Your task to perform on an android device: Open Google Chrome and click the shortcut for Amazon.com Image 0: 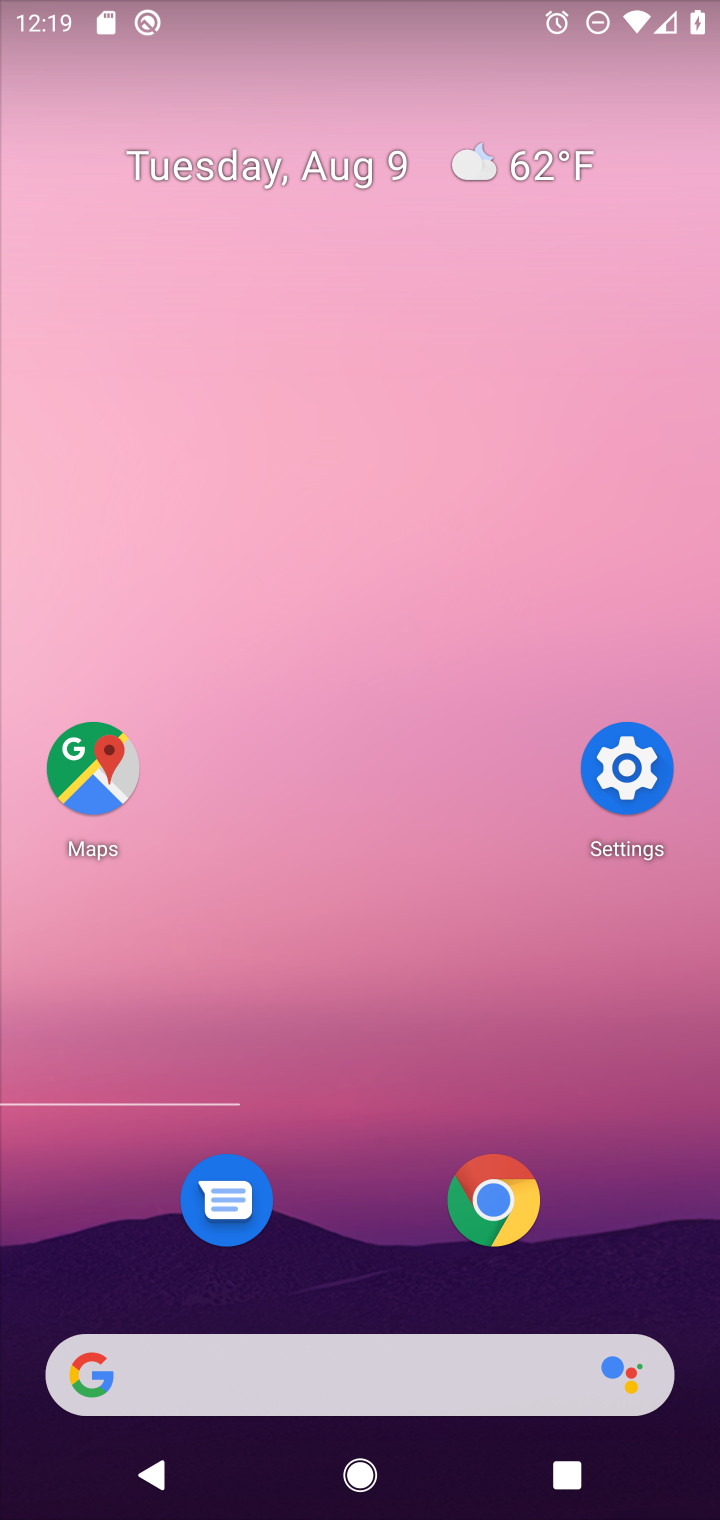
Step 0: press home button
Your task to perform on an android device: Open Google Chrome and click the shortcut for Amazon.com Image 1: 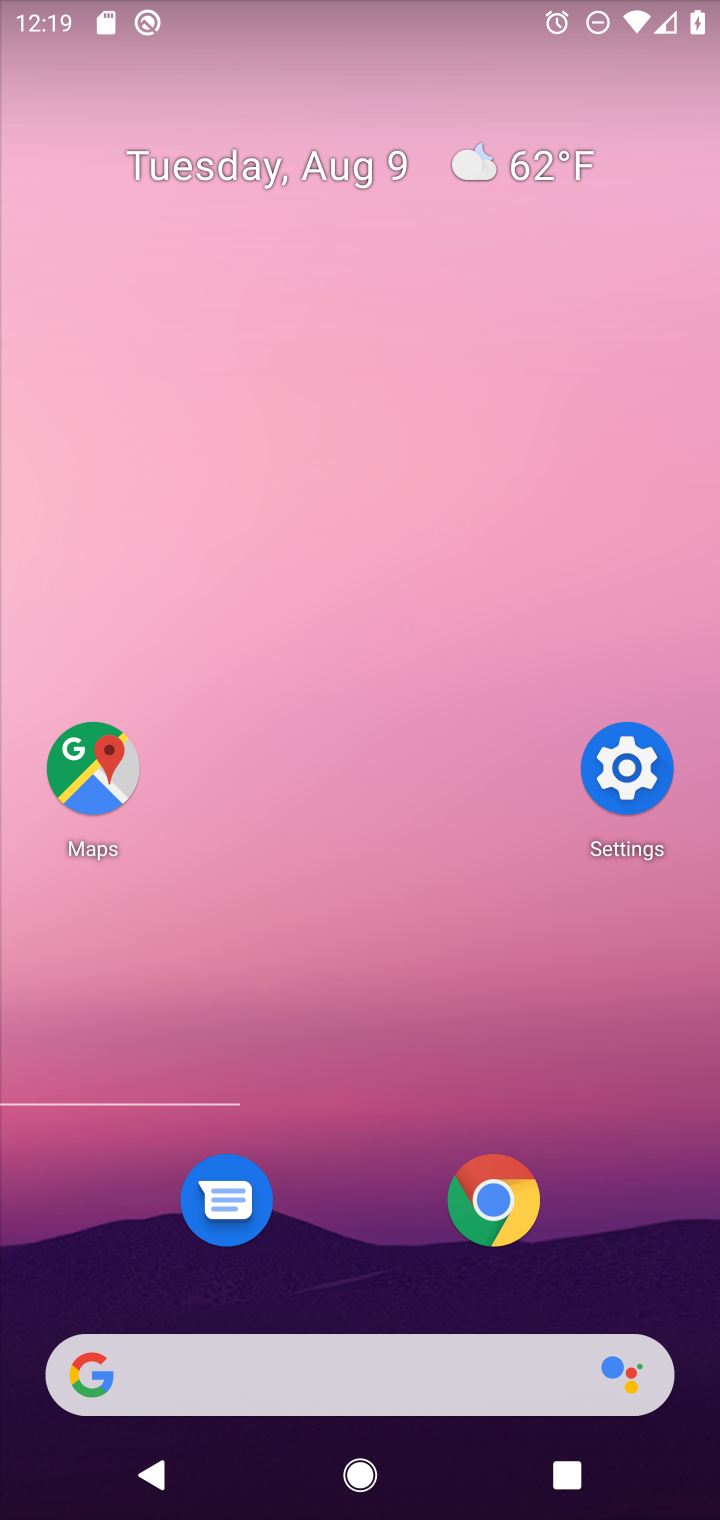
Step 1: click (493, 1197)
Your task to perform on an android device: Open Google Chrome and click the shortcut for Amazon.com Image 2: 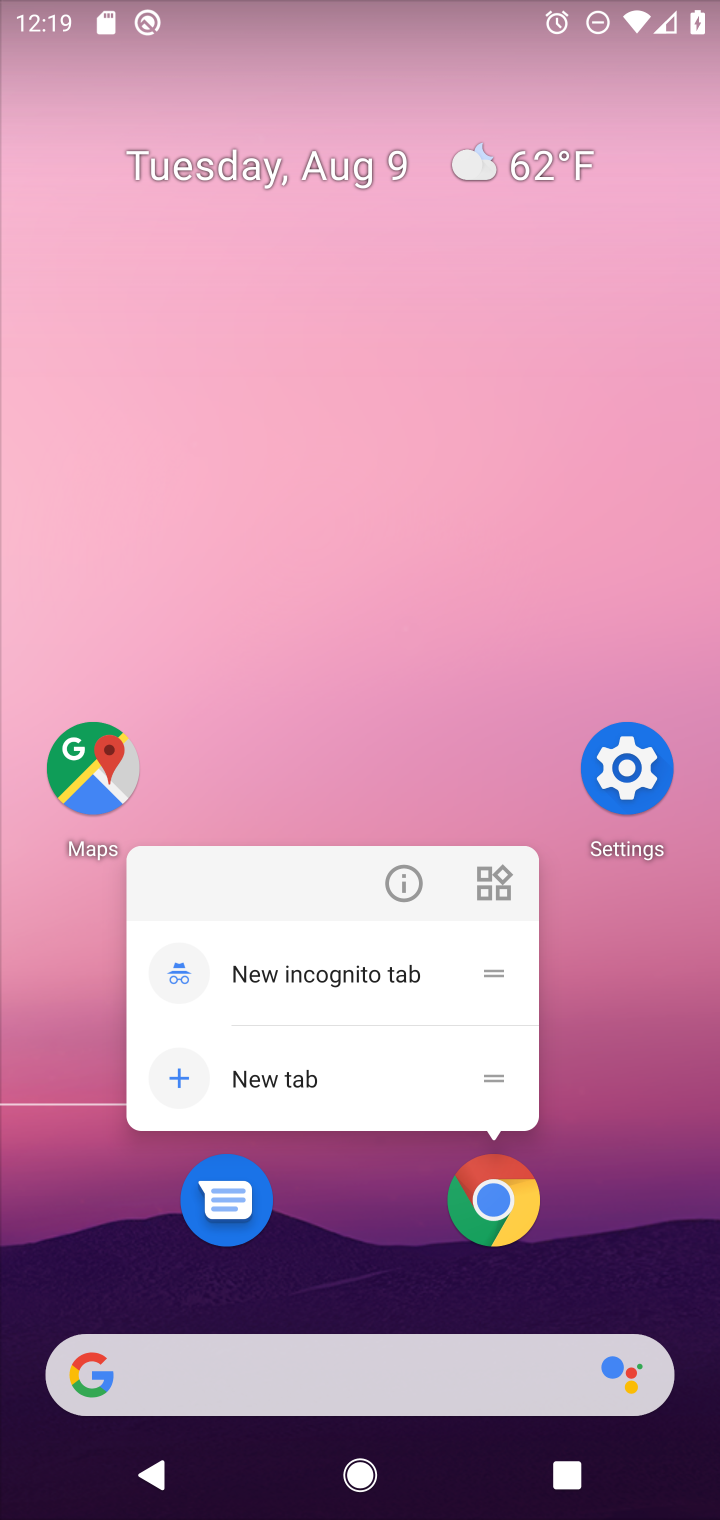
Step 2: click (493, 1198)
Your task to perform on an android device: Open Google Chrome and click the shortcut for Amazon.com Image 3: 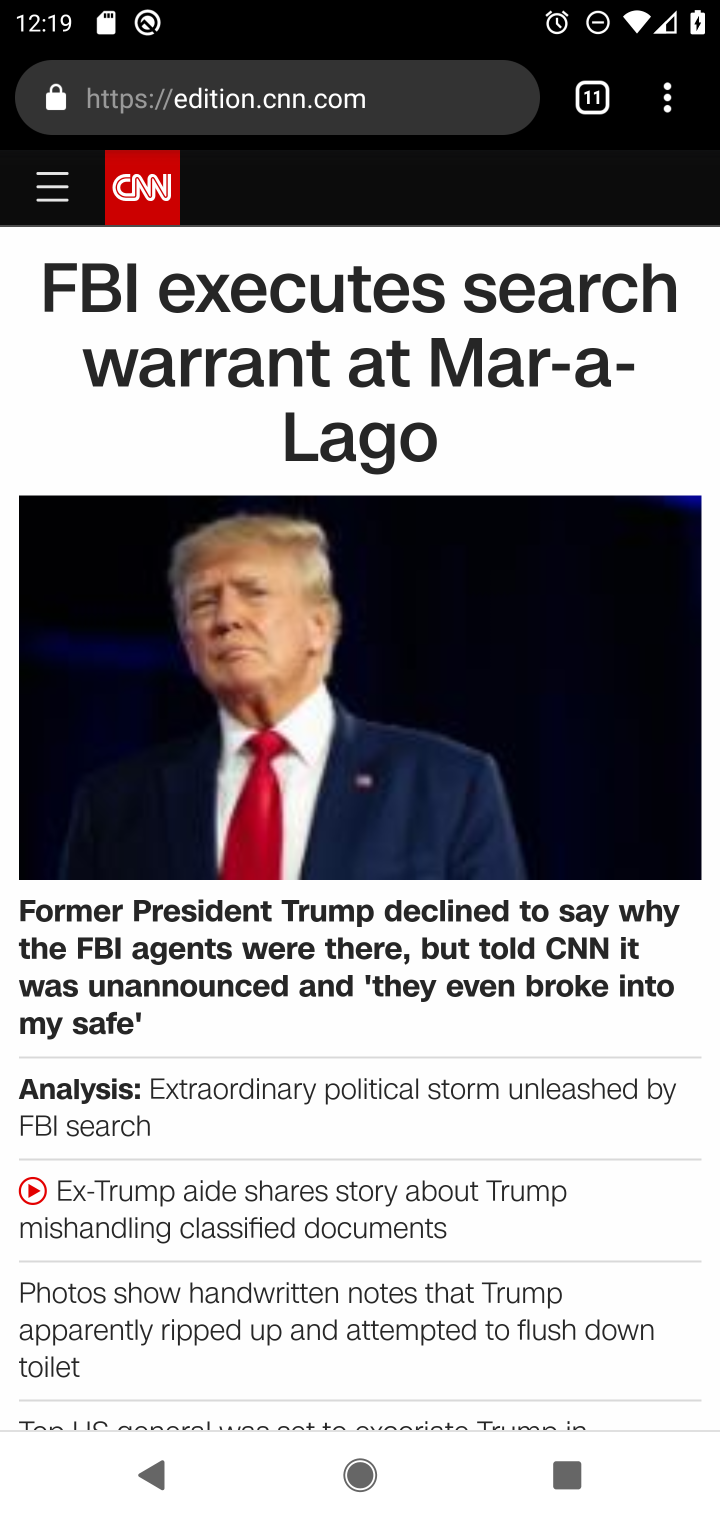
Step 3: drag from (677, 96) to (467, 317)
Your task to perform on an android device: Open Google Chrome and click the shortcut for Amazon.com Image 4: 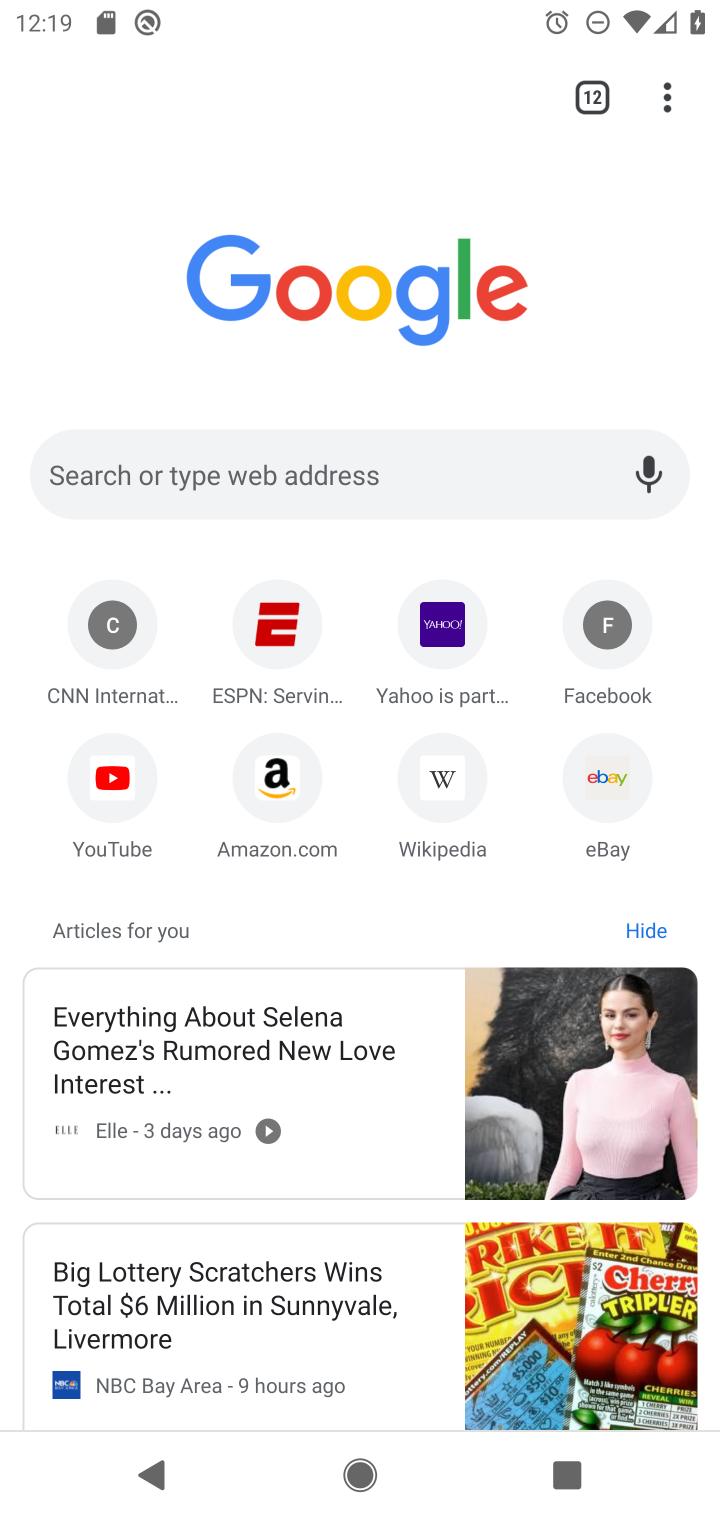
Step 4: click (266, 777)
Your task to perform on an android device: Open Google Chrome and click the shortcut for Amazon.com Image 5: 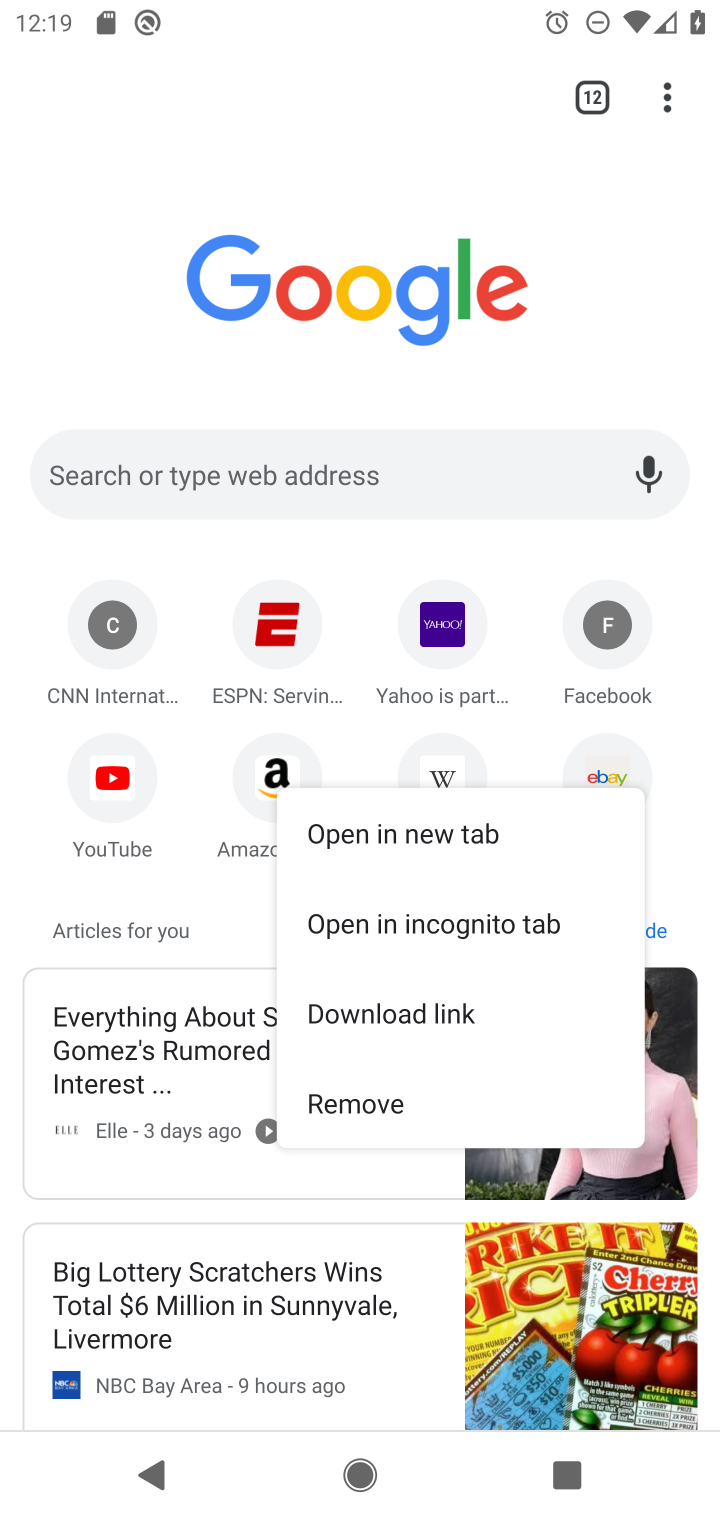
Step 5: click (266, 777)
Your task to perform on an android device: Open Google Chrome and click the shortcut for Amazon.com Image 6: 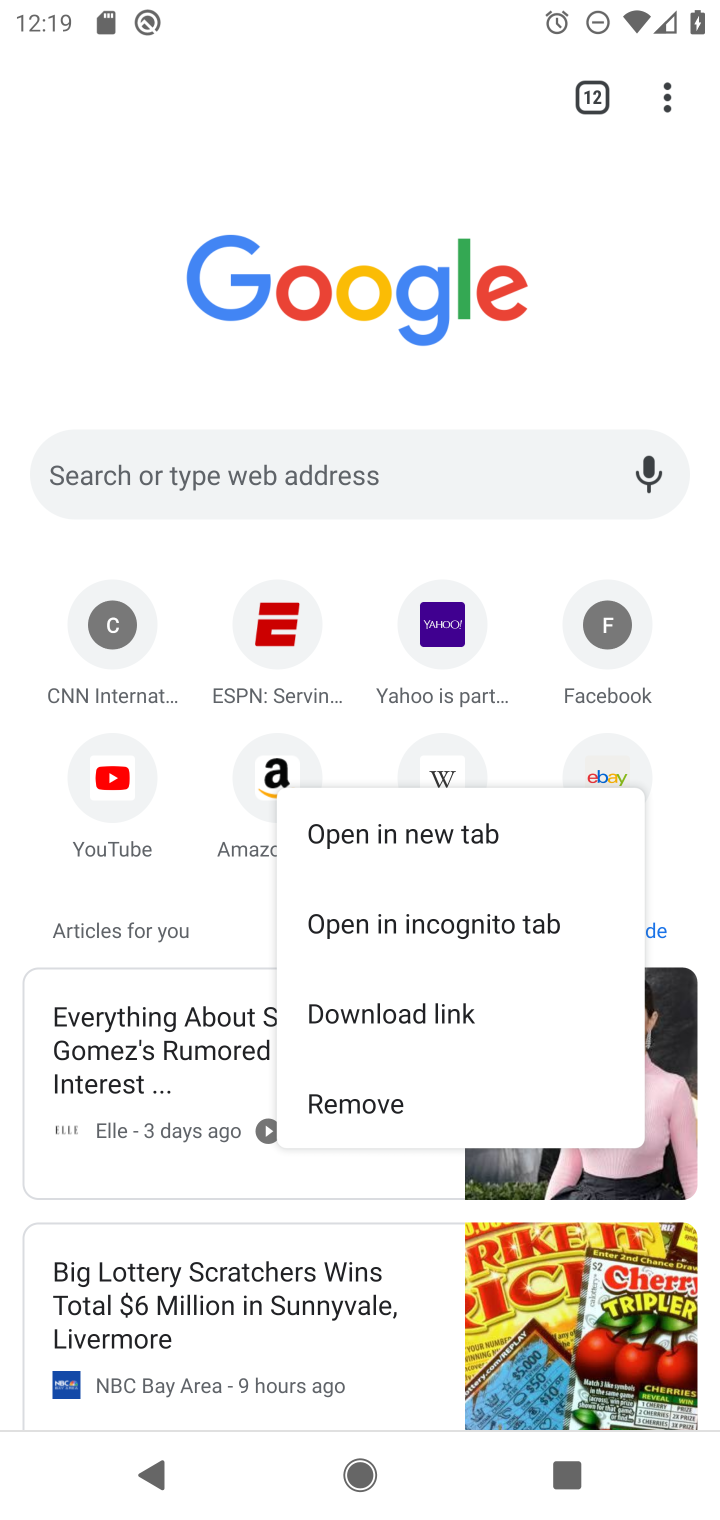
Step 6: click (266, 779)
Your task to perform on an android device: Open Google Chrome and click the shortcut for Amazon.com Image 7: 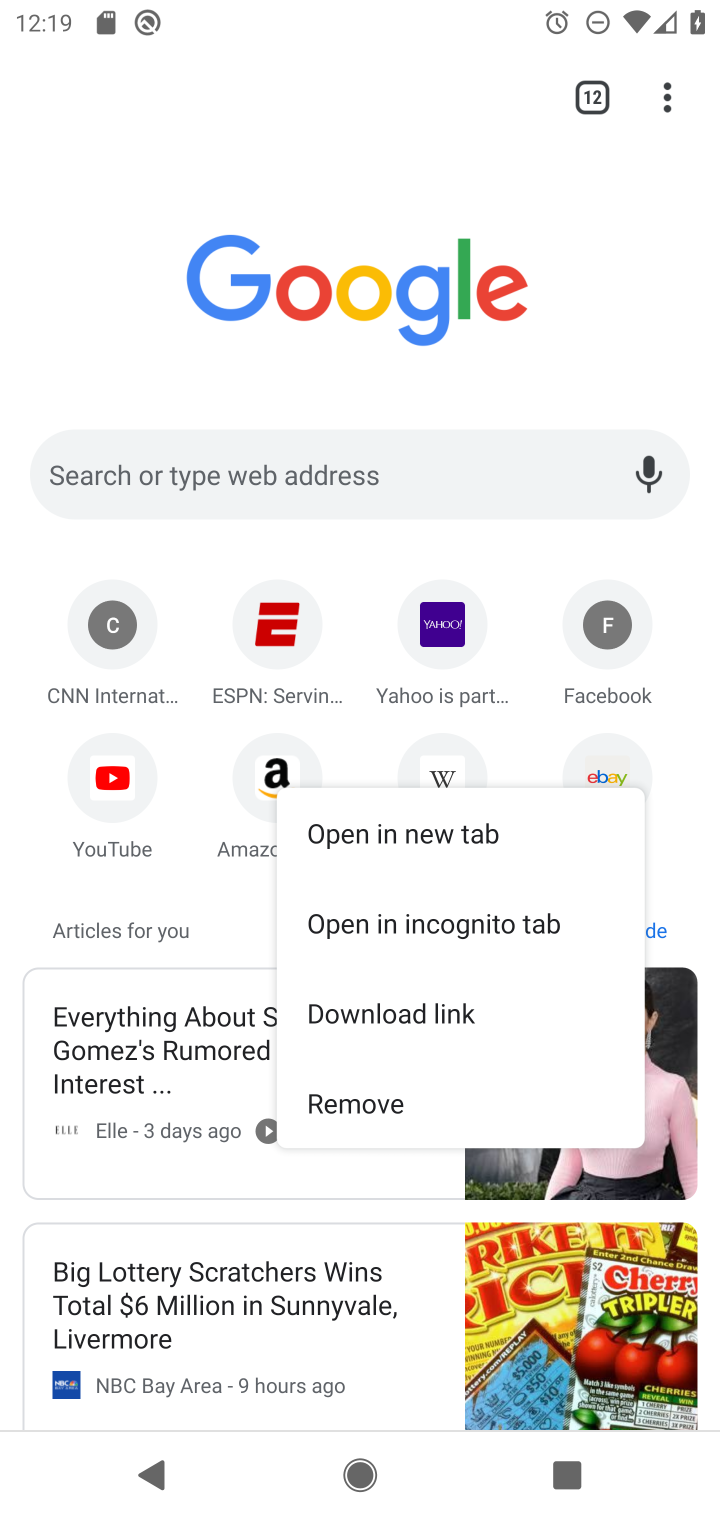
Step 7: click (282, 767)
Your task to perform on an android device: Open Google Chrome and click the shortcut for Amazon.com Image 8: 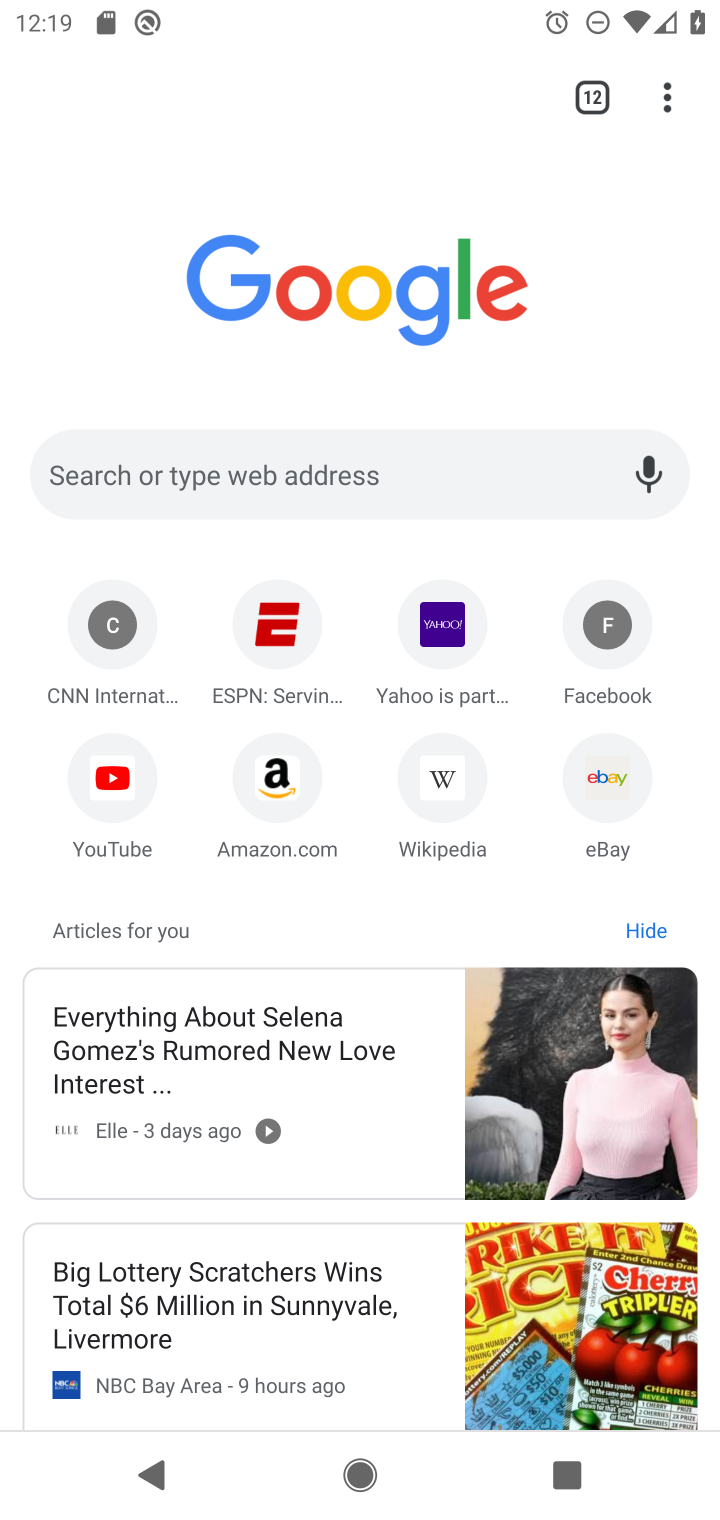
Step 8: click (282, 767)
Your task to perform on an android device: Open Google Chrome and click the shortcut for Amazon.com Image 9: 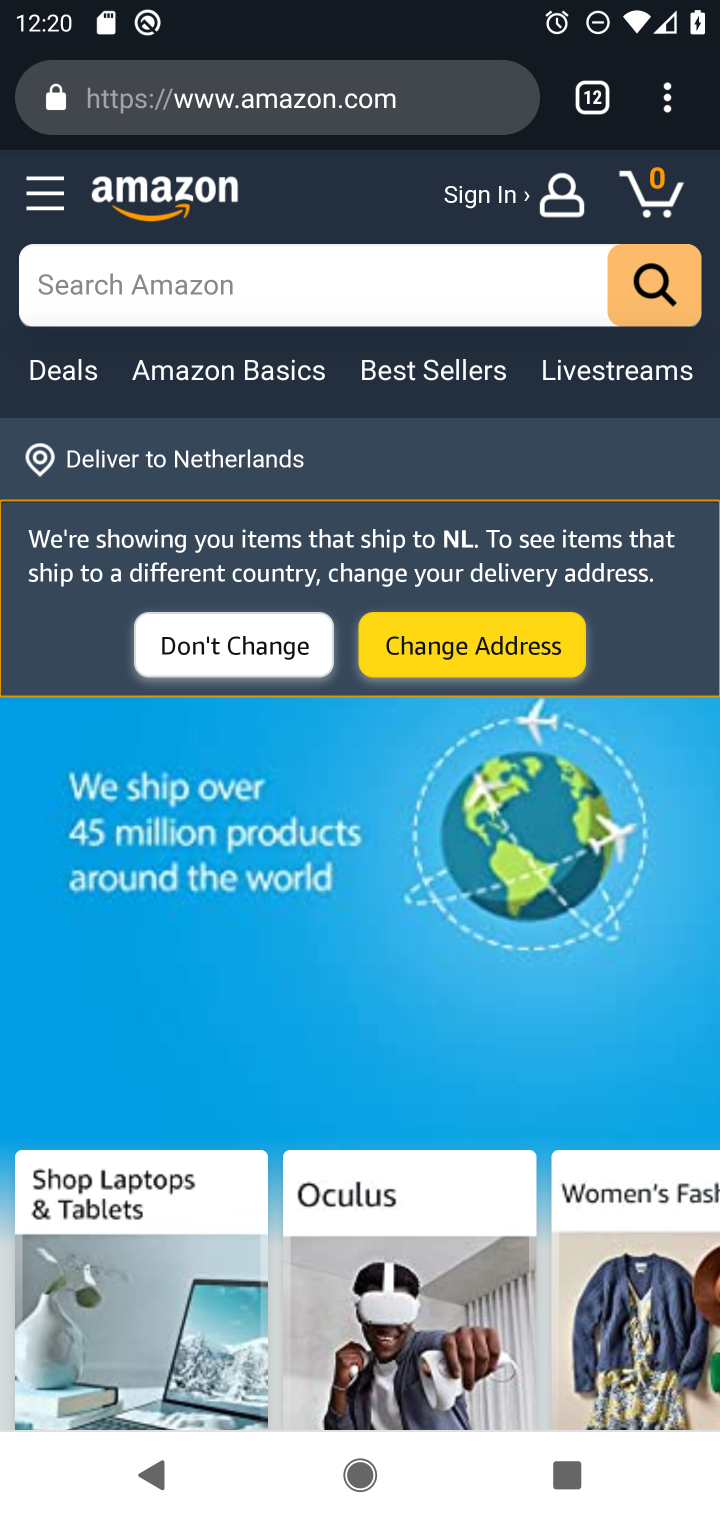
Step 9: task complete